Your task to perform on an android device: turn off wifi Image 0: 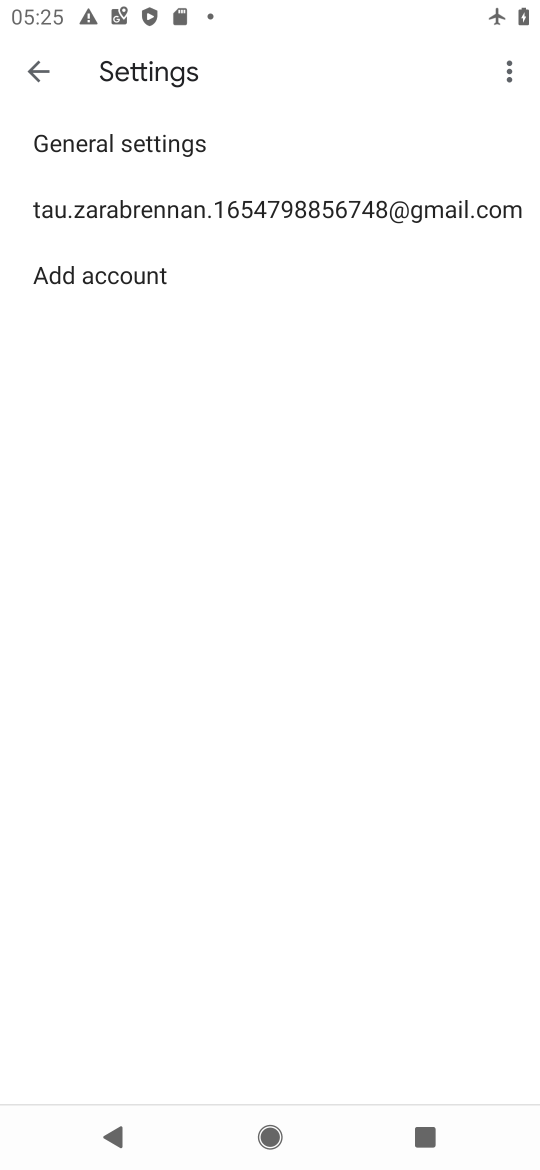
Step 0: press home button
Your task to perform on an android device: turn off wifi Image 1: 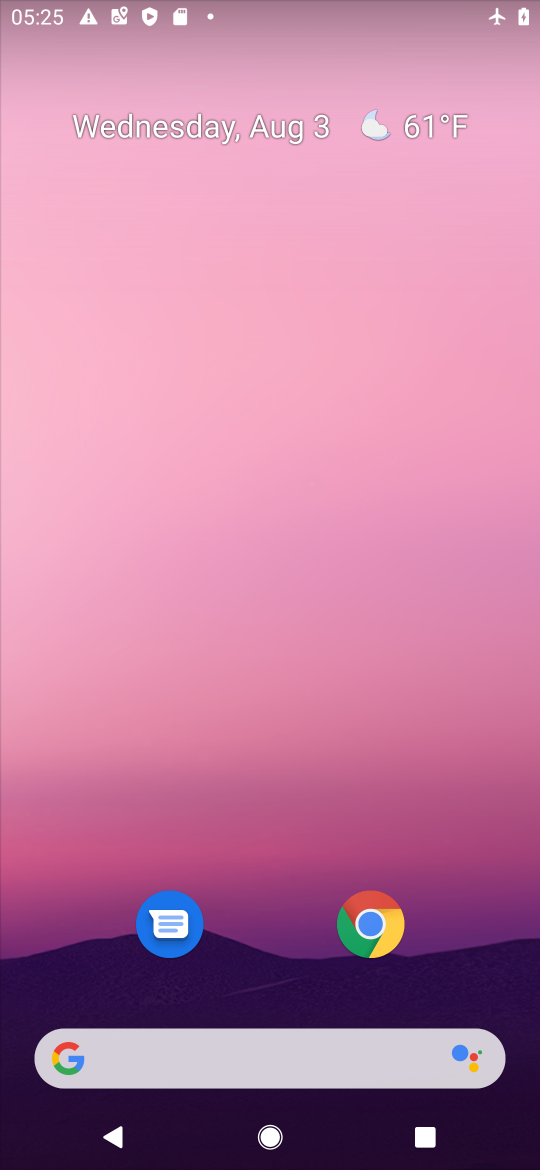
Step 1: drag from (259, 603) to (259, 397)
Your task to perform on an android device: turn off wifi Image 2: 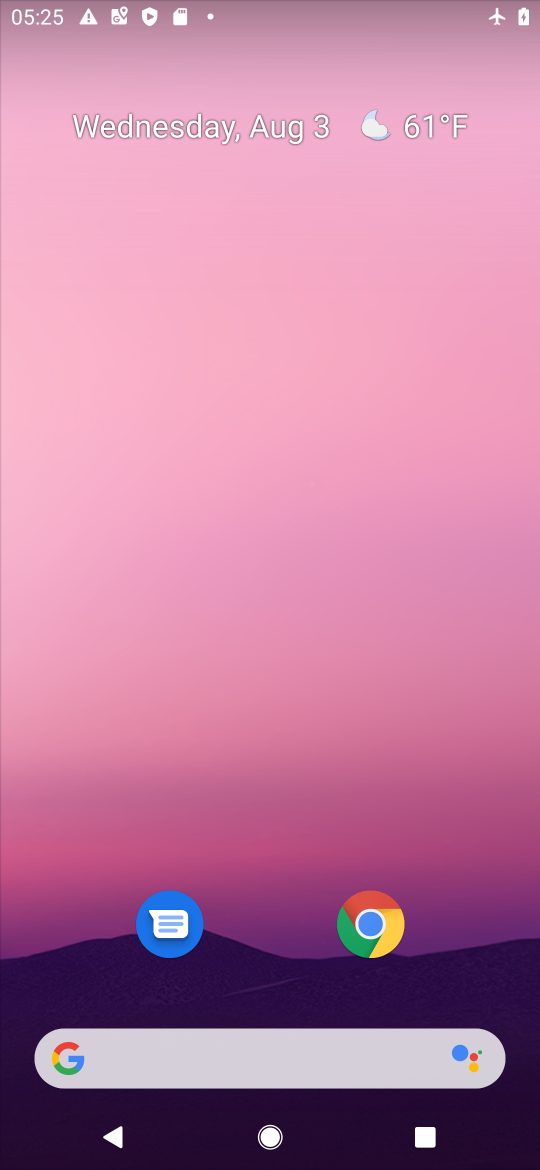
Step 2: drag from (273, 747) to (273, 290)
Your task to perform on an android device: turn off wifi Image 3: 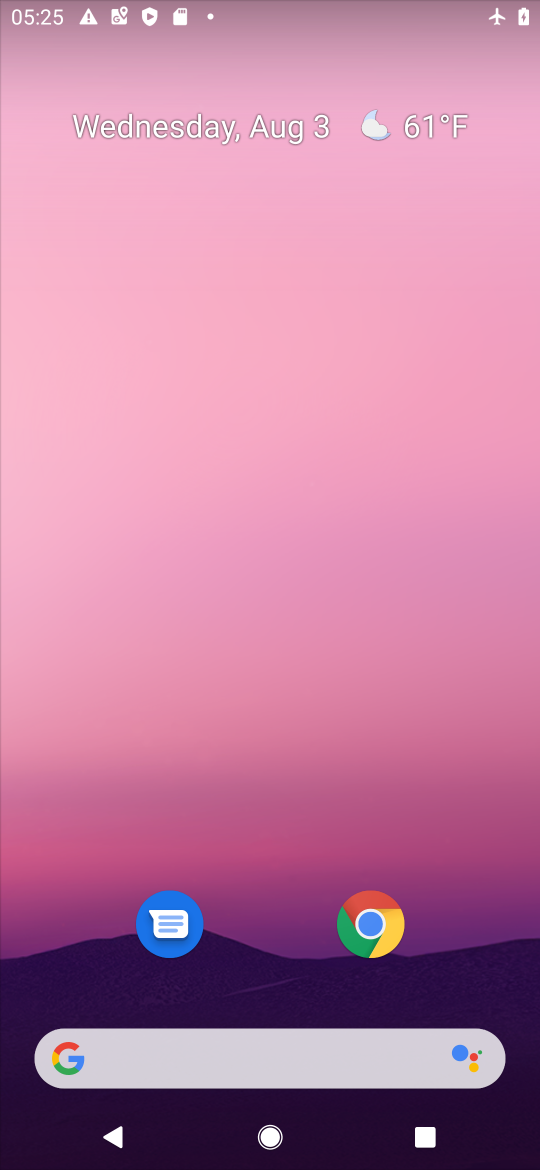
Step 3: drag from (283, 905) to (290, 220)
Your task to perform on an android device: turn off wifi Image 4: 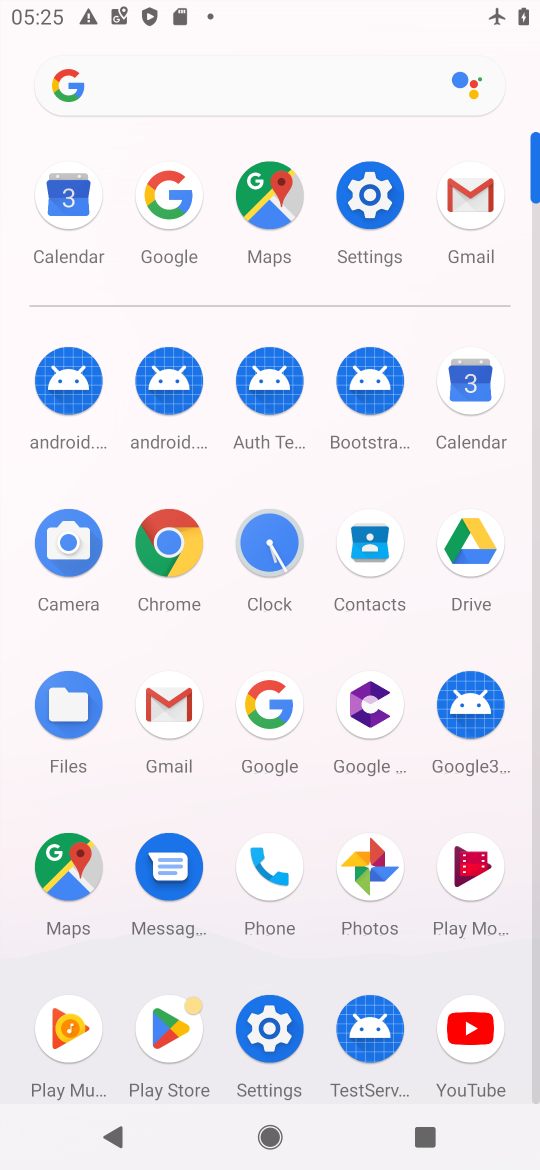
Step 4: click (365, 211)
Your task to perform on an android device: turn off wifi Image 5: 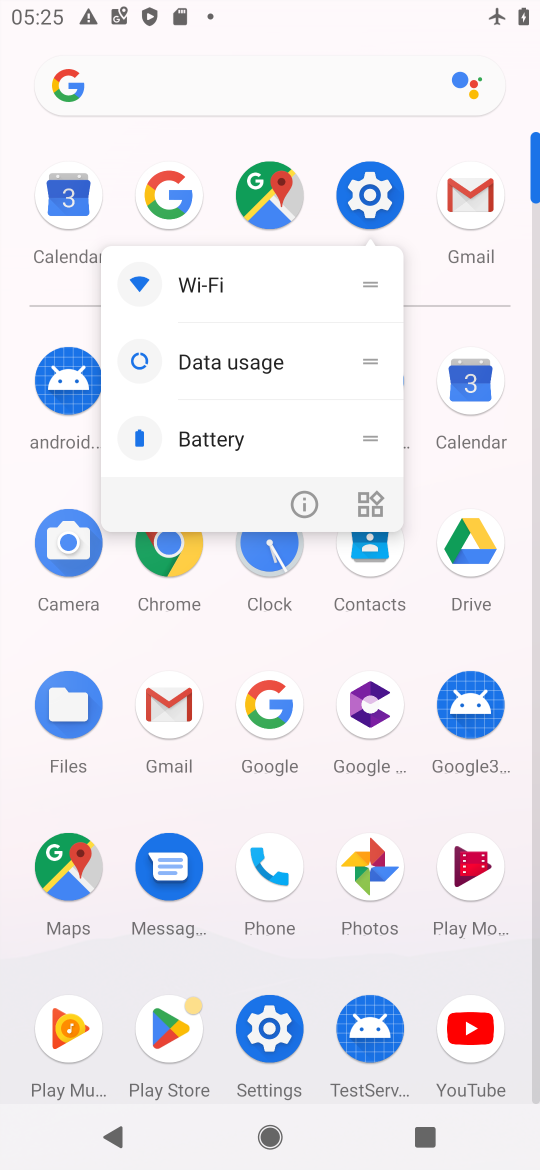
Step 5: click (365, 211)
Your task to perform on an android device: turn off wifi Image 6: 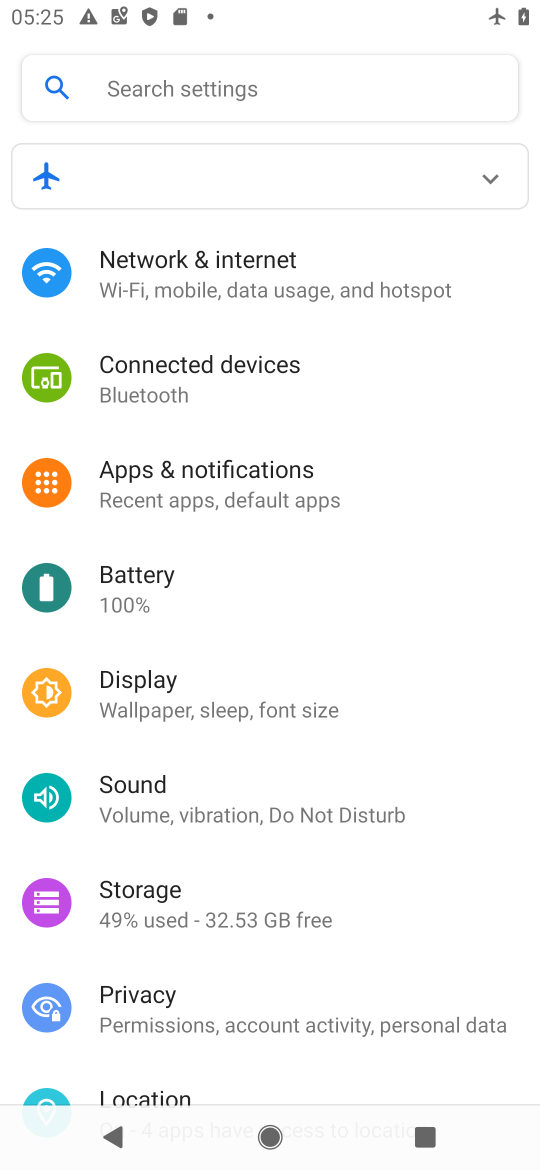
Step 6: click (191, 272)
Your task to perform on an android device: turn off wifi Image 7: 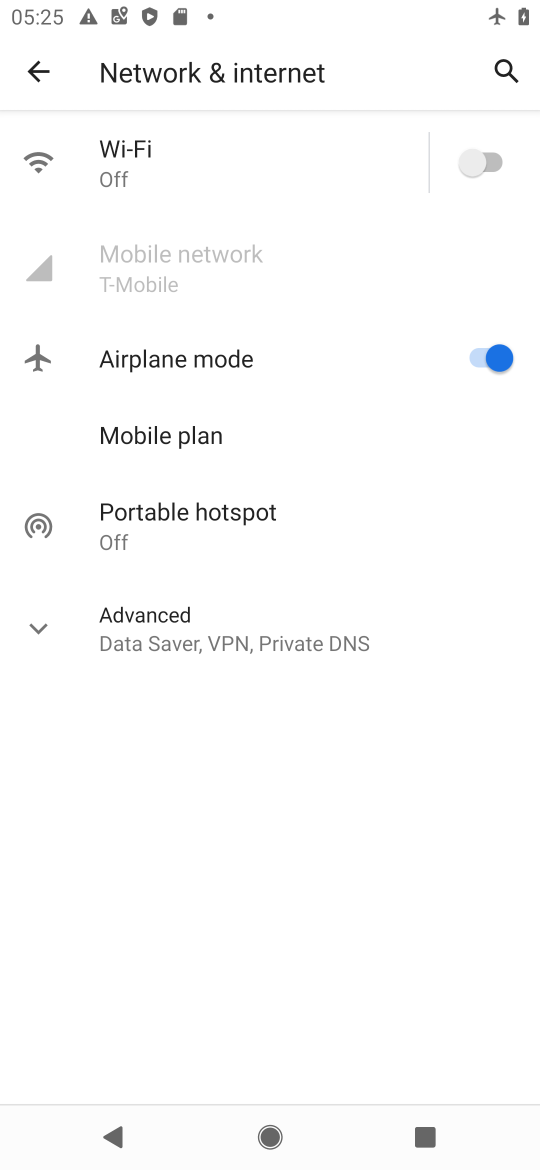
Step 7: task complete